Your task to perform on an android device: Open Chrome and go to the settings page Image 0: 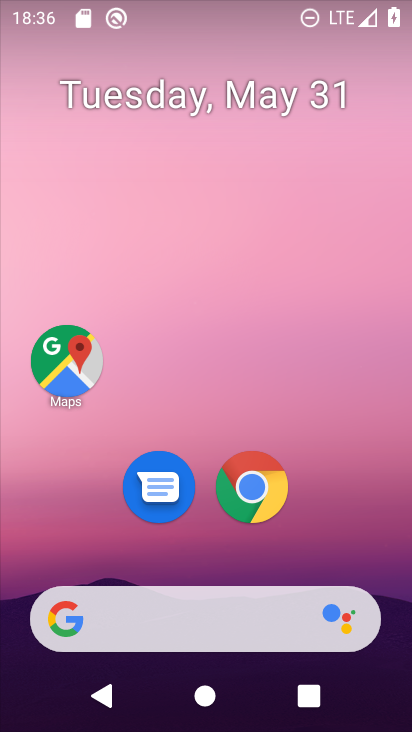
Step 0: click (249, 491)
Your task to perform on an android device: Open Chrome and go to the settings page Image 1: 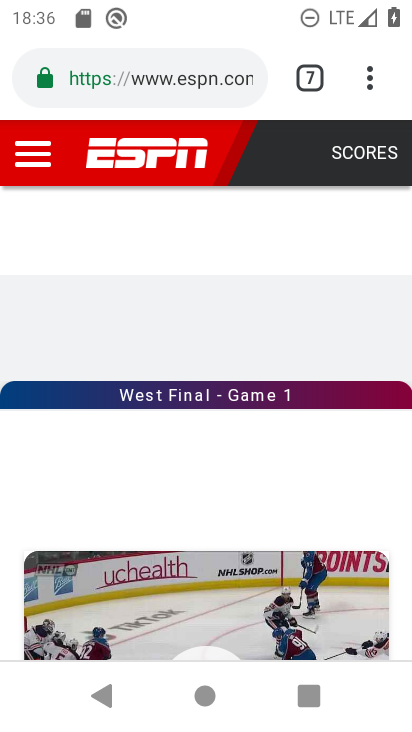
Step 1: click (362, 78)
Your task to perform on an android device: Open Chrome and go to the settings page Image 2: 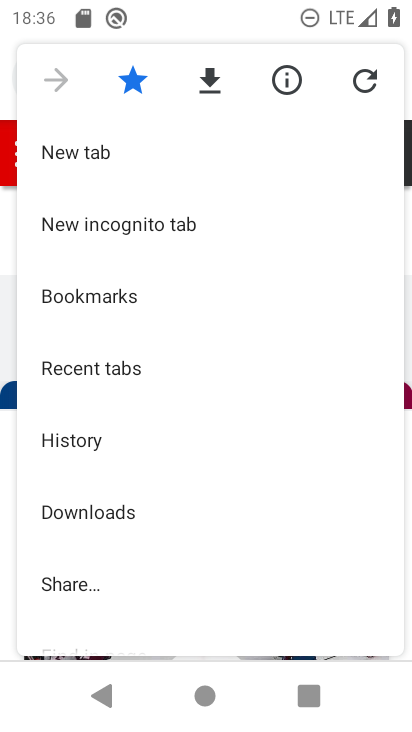
Step 2: drag from (168, 531) to (161, 218)
Your task to perform on an android device: Open Chrome and go to the settings page Image 3: 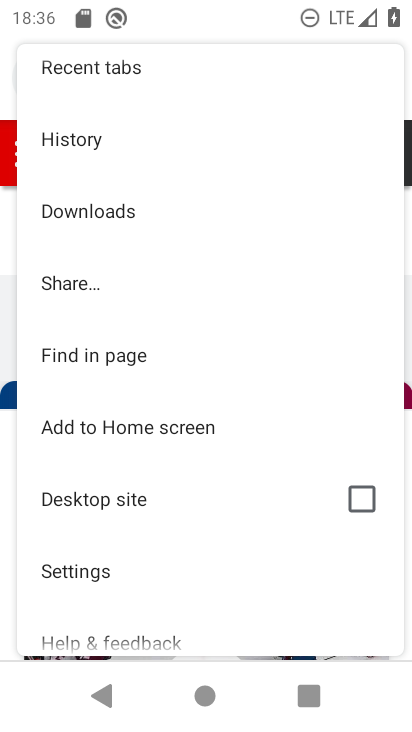
Step 3: click (95, 562)
Your task to perform on an android device: Open Chrome and go to the settings page Image 4: 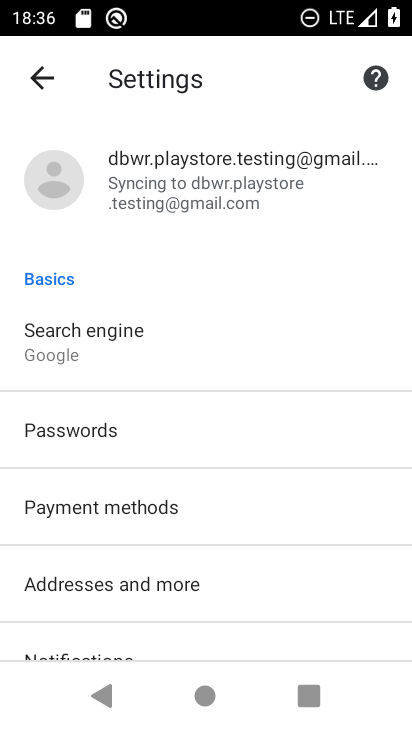
Step 4: task complete